Your task to perform on an android device: Go to display settings Image 0: 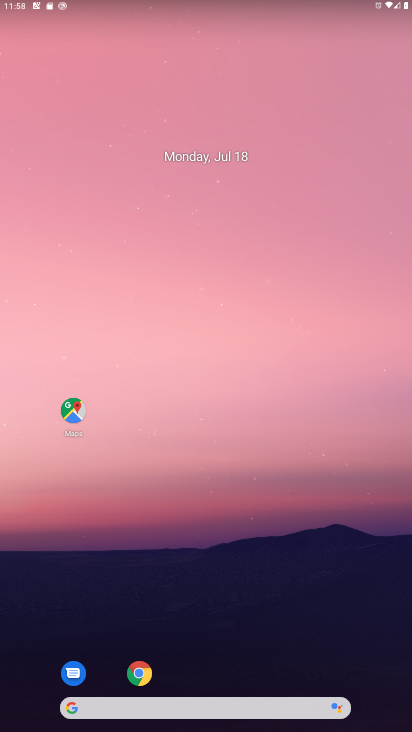
Step 0: drag from (220, 657) to (197, 126)
Your task to perform on an android device: Go to display settings Image 1: 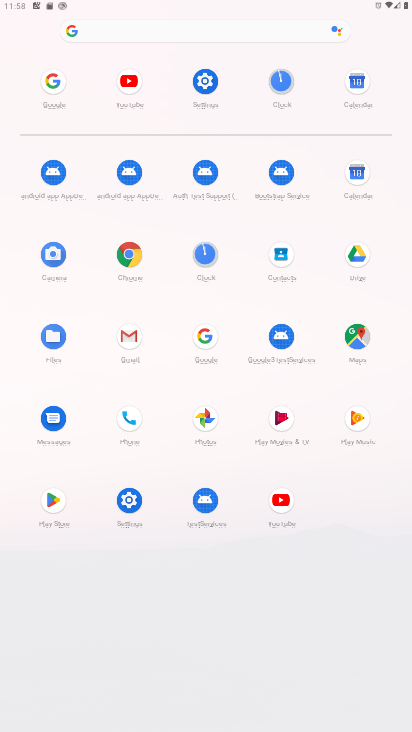
Step 1: click (199, 90)
Your task to perform on an android device: Go to display settings Image 2: 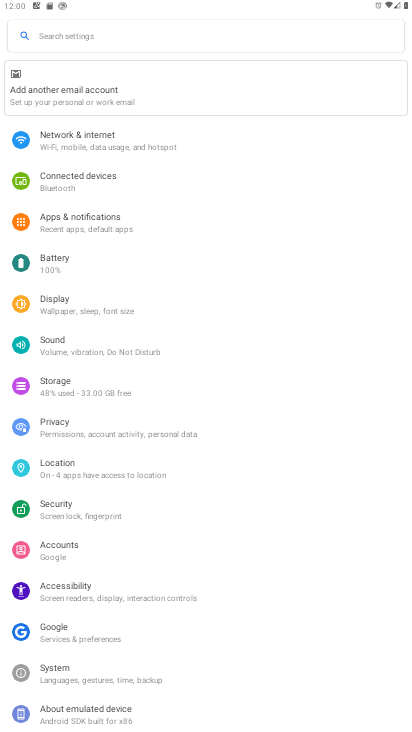
Step 2: click (83, 298)
Your task to perform on an android device: Go to display settings Image 3: 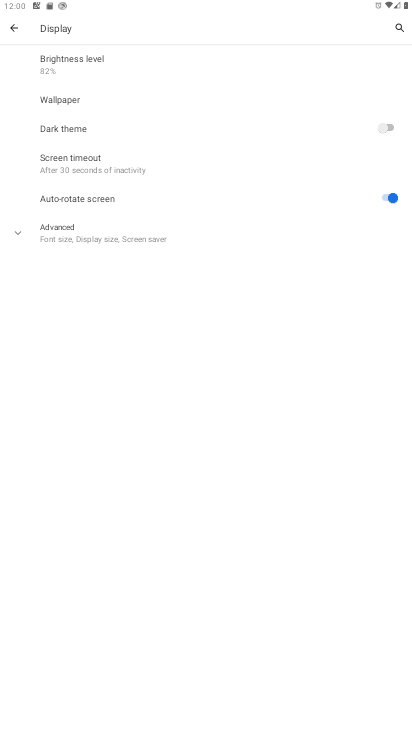
Step 3: task complete